Your task to perform on an android device: Toggle the flashlight Image 0: 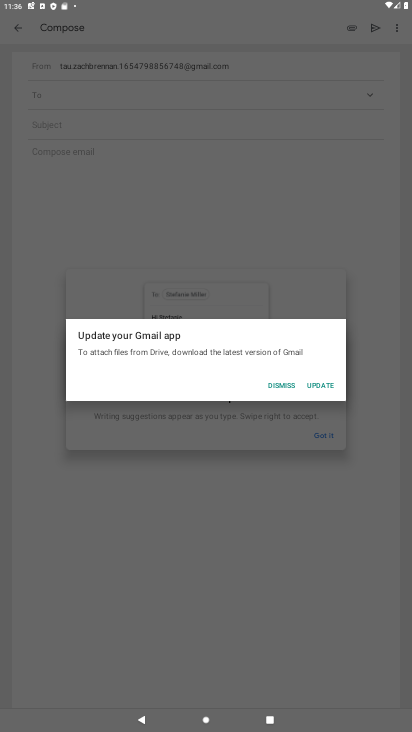
Step 0: press home button
Your task to perform on an android device: Toggle the flashlight Image 1: 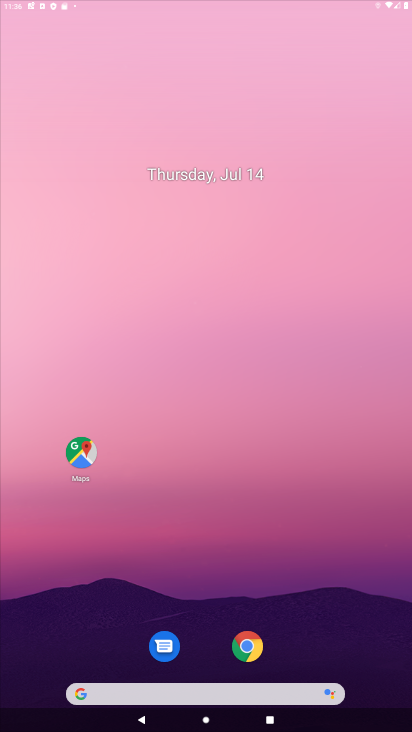
Step 1: drag from (232, 532) to (271, 170)
Your task to perform on an android device: Toggle the flashlight Image 2: 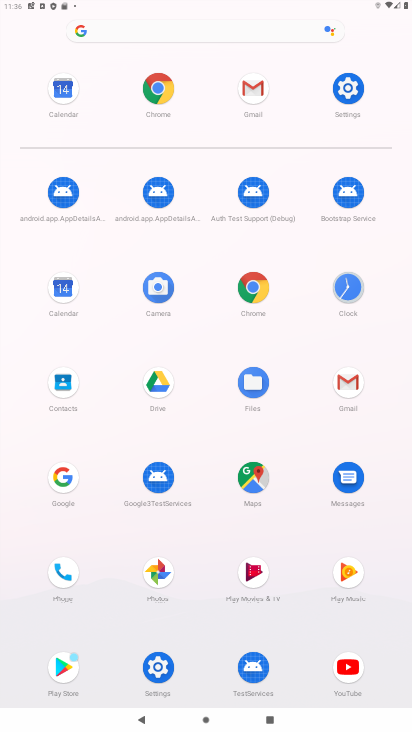
Step 2: click (332, 96)
Your task to perform on an android device: Toggle the flashlight Image 3: 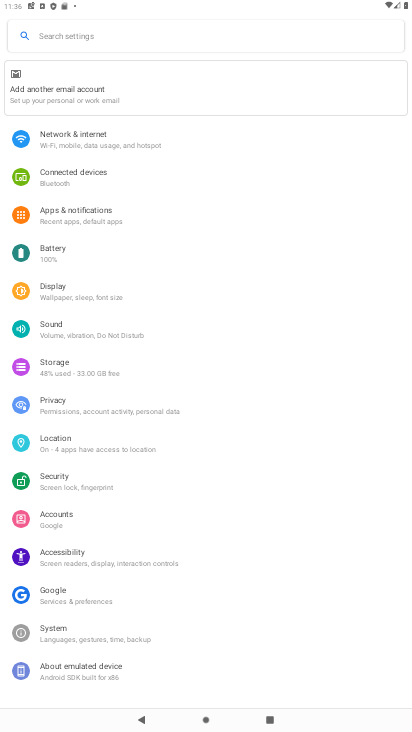
Step 3: task complete